Your task to perform on an android device: Search for Mexican restaurants on Maps Image 0: 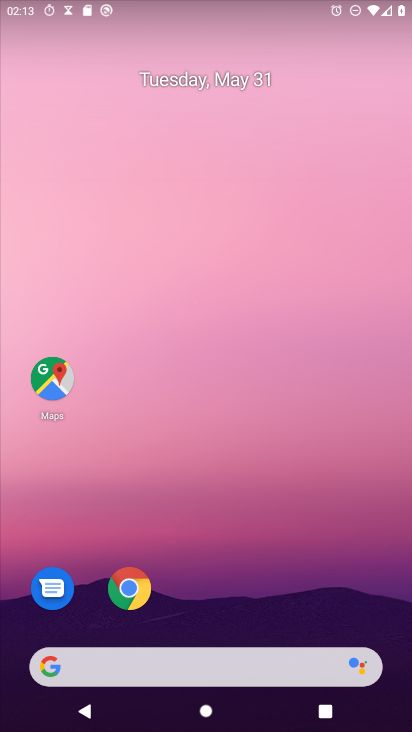
Step 0: drag from (314, 678) to (200, 17)
Your task to perform on an android device: Search for Mexican restaurants on Maps Image 1: 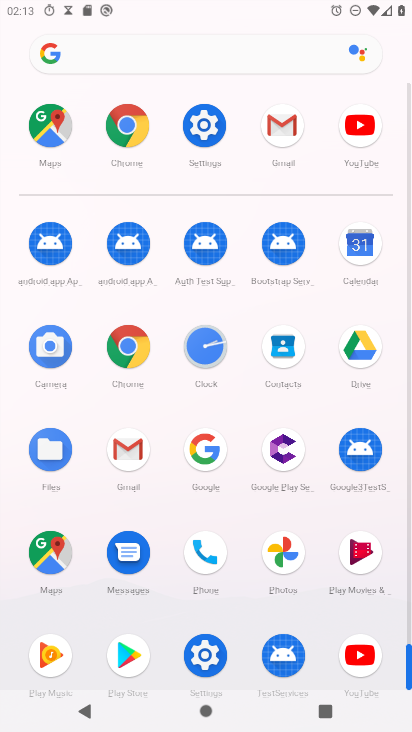
Step 1: click (53, 552)
Your task to perform on an android device: Search for Mexican restaurants on Maps Image 2: 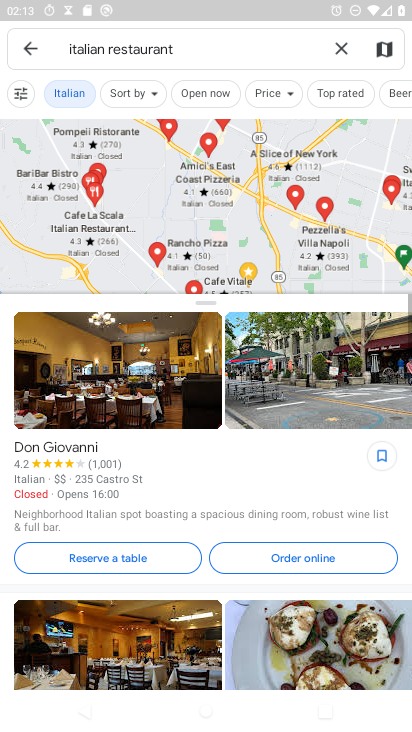
Step 2: press back button
Your task to perform on an android device: Search for Mexican restaurants on Maps Image 3: 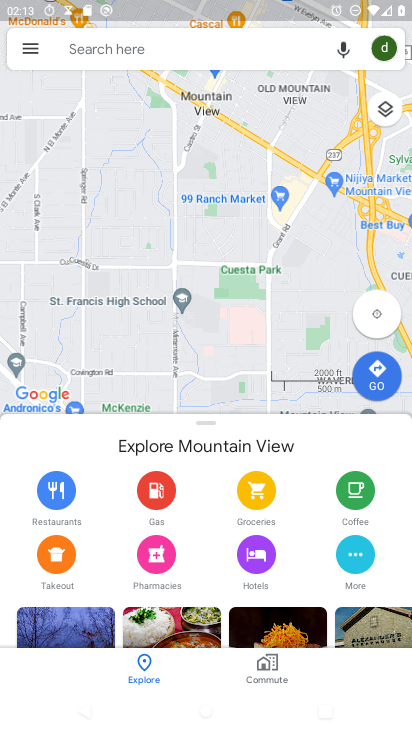
Step 3: click (261, 48)
Your task to perform on an android device: Search for Mexican restaurants on Maps Image 4: 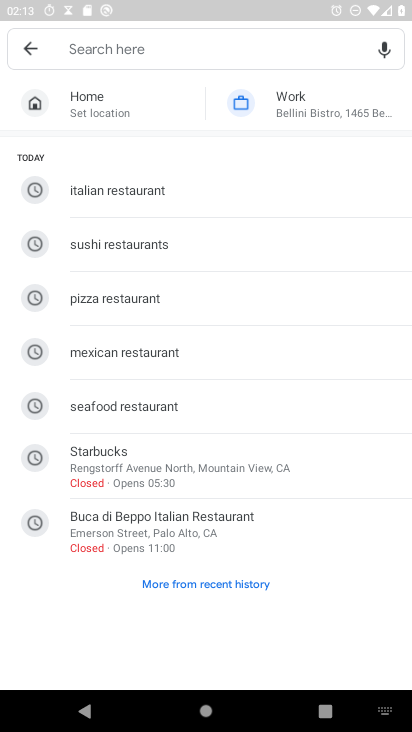
Step 4: click (204, 359)
Your task to perform on an android device: Search for Mexican restaurants on Maps Image 5: 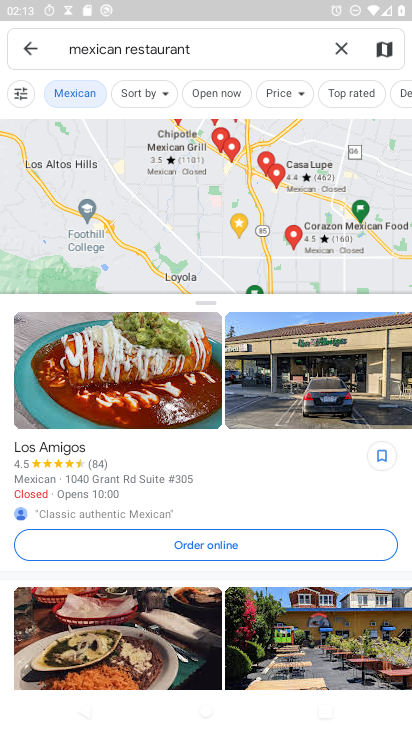
Step 5: task complete